Your task to perform on an android device: show emergency info Image 0: 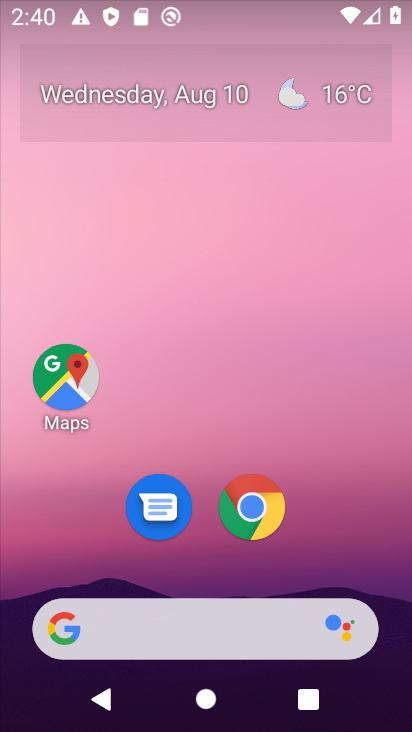
Step 0: drag from (309, 589) to (20, 4)
Your task to perform on an android device: show emergency info Image 1: 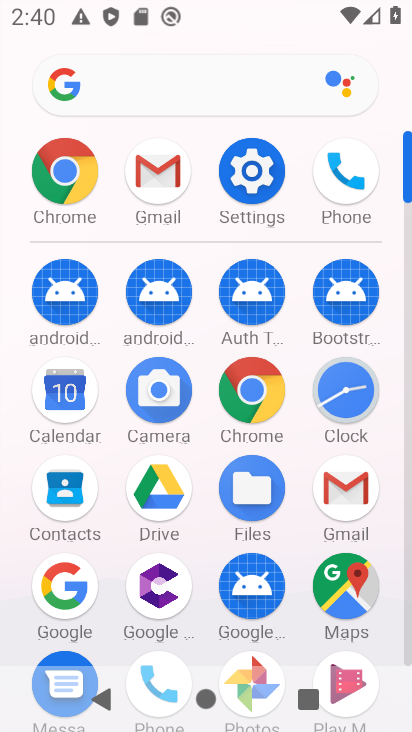
Step 1: click (240, 185)
Your task to perform on an android device: show emergency info Image 2: 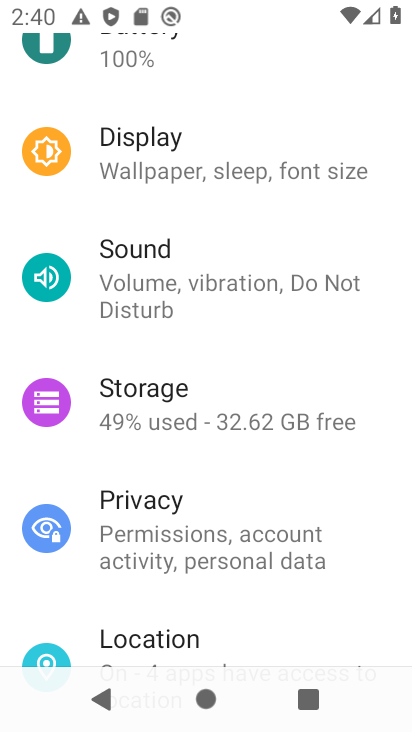
Step 2: drag from (284, 372) to (196, 2)
Your task to perform on an android device: show emergency info Image 3: 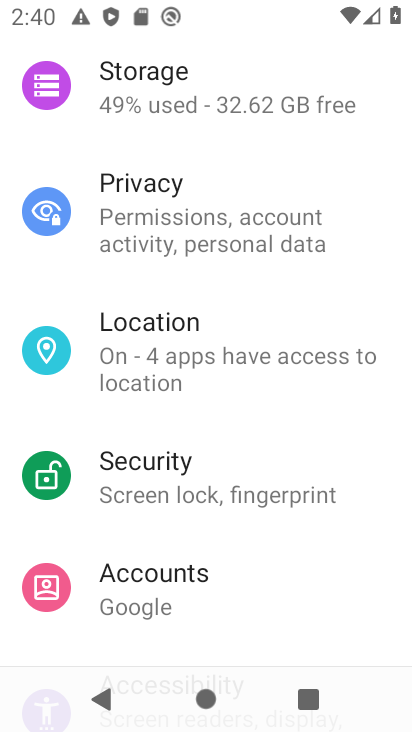
Step 3: drag from (296, 445) to (234, 1)
Your task to perform on an android device: show emergency info Image 4: 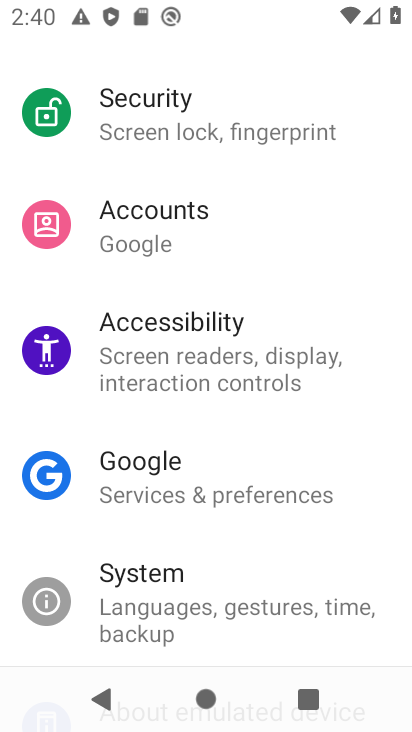
Step 4: drag from (353, 277) to (212, 0)
Your task to perform on an android device: show emergency info Image 5: 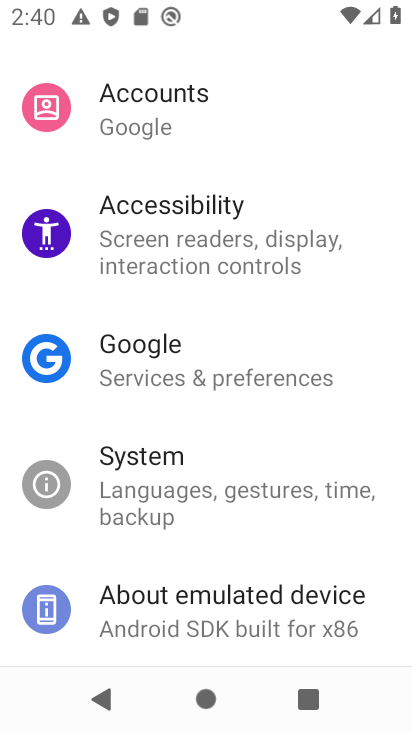
Step 5: click (201, 571)
Your task to perform on an android device: show emergency info Image 6: 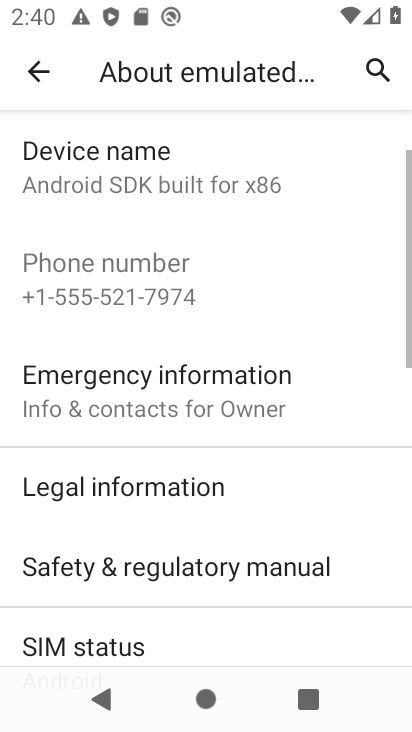
Step 6: click (199, 420)
Your task to perform on an android device: show emergency info Image 7: 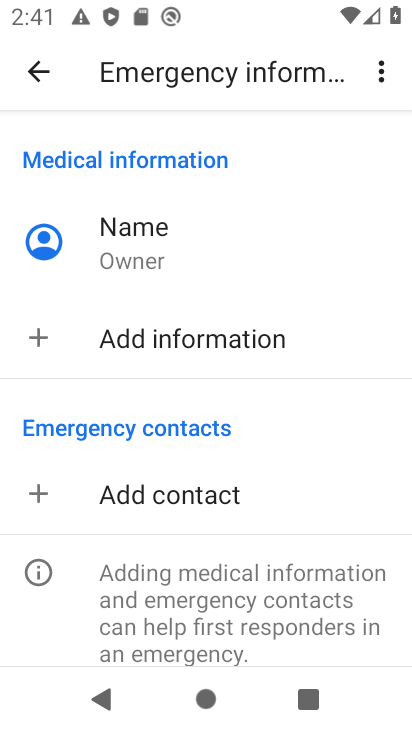
Step 7: task complete